Your task to perform on an android device: turn off notifications in google photos Image 0: 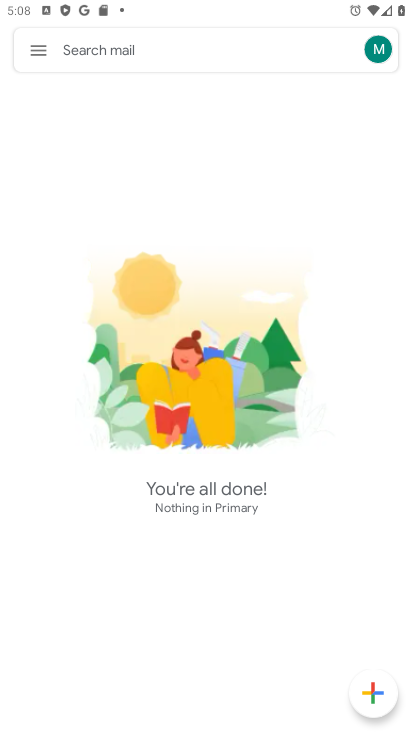
Step 0: press home button
Your task to perform on an android device: turn off notifications in google photos Image 1: 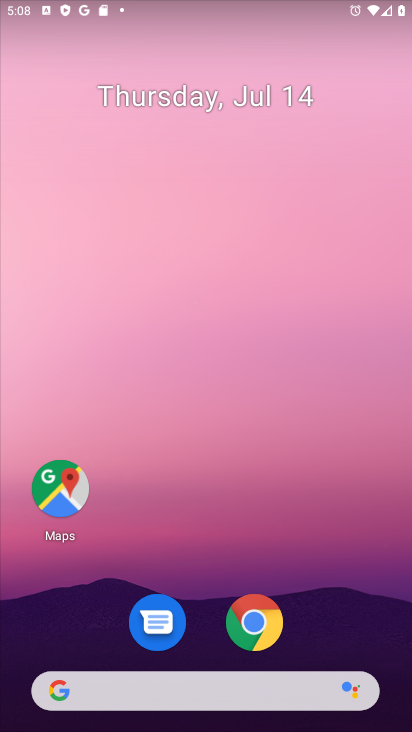
Step 1: drag from (183, 596) to (253, 93)
Your task to perform on an android device: turn off notifications in google photos Image 2: 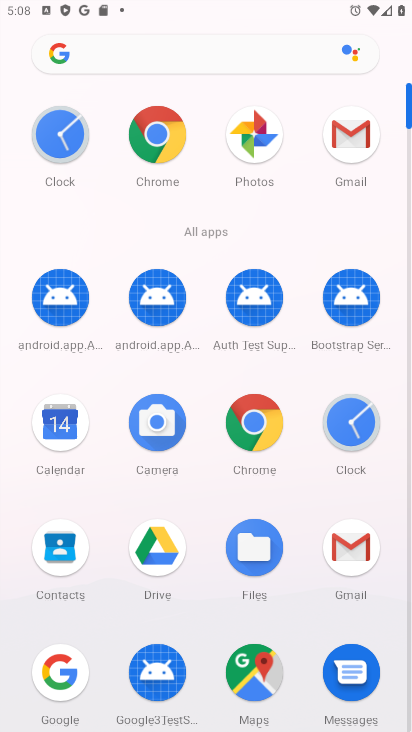
Step 2: click (274, 137)
Your task to perform on an android device: turn off notifications in google photos Image 3: 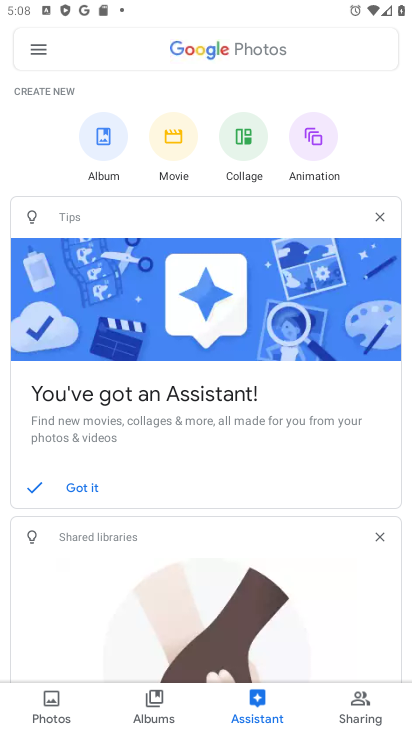
Step 3: click (42, 51)
Your task to perform on an android device: turn off notifications in google photos Image 4: 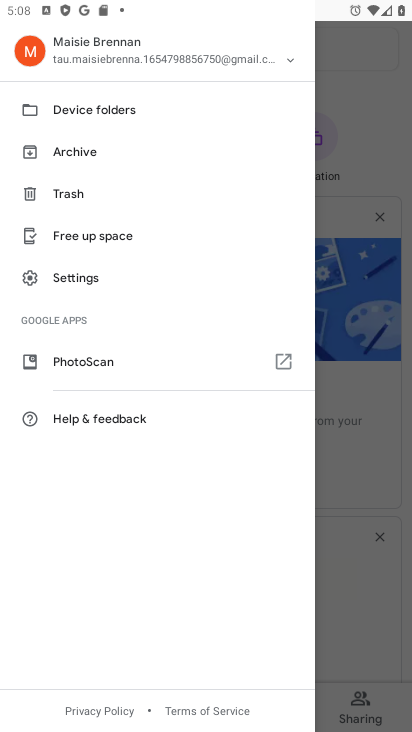
Step 4: click (74, 278)
Your task to perform on an android device: turn off notifications in google photos Image 5: 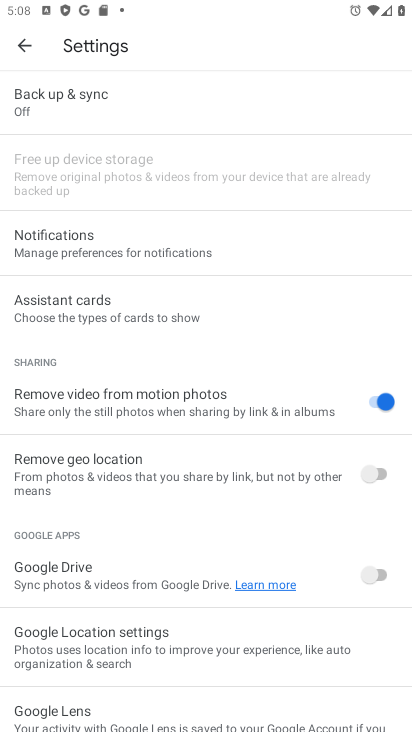
Step 5: click (140, 243)
Your task to perform on an android device: turn off notifications in google photos Image 6: 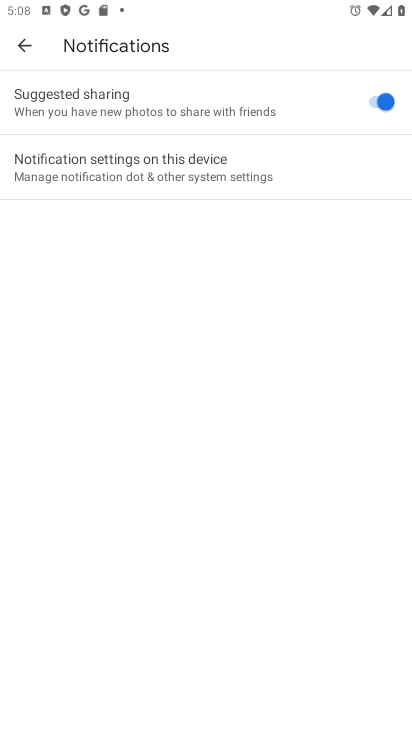
Step 6: click (265, 194)
Your task to perform on an android device: turn off notifications in google photos Image 7: 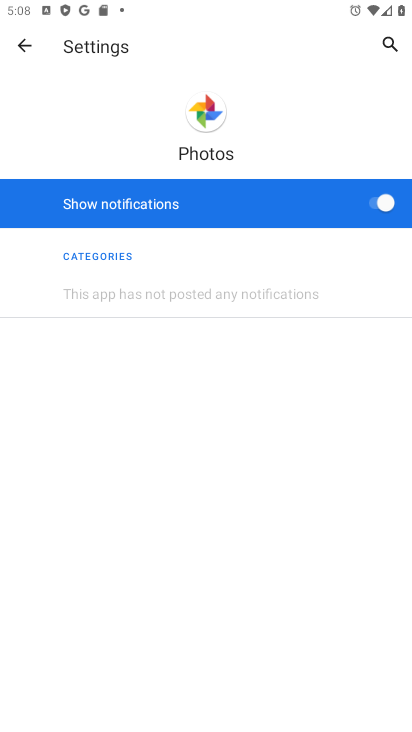
Step 7: click (371, 204)
Your task to perform on an android device: turn off notifications in google photos Image 8: 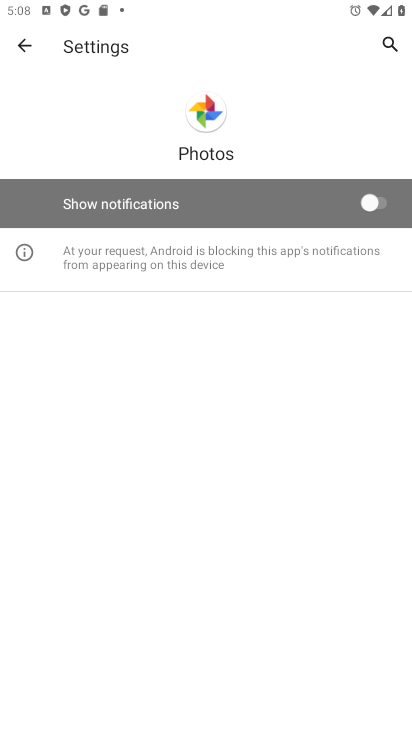
Step 8: task complete